Your task to perform on an android device: check storage Image 0: 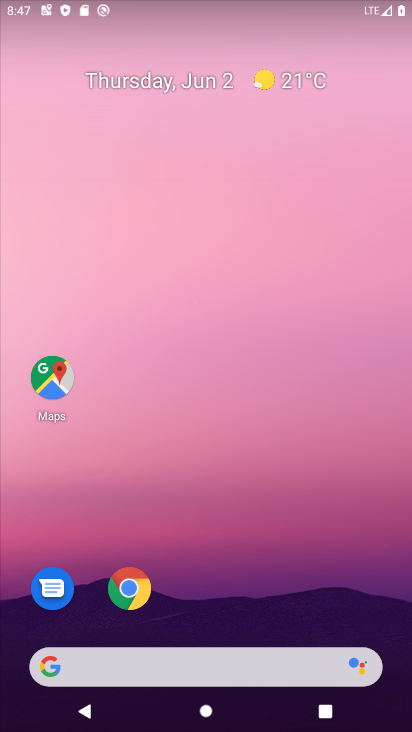
Step 0: drag from (206, 335) to (206, 287)
Your task to perform on an android device: check storage Image 1: 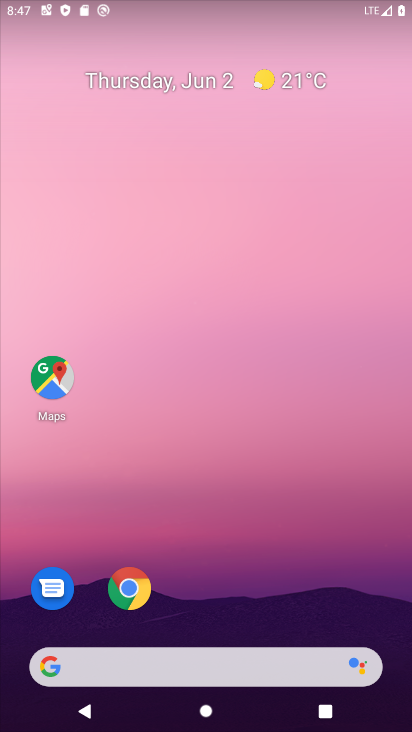
Step 1: drag from (226, 642) to (246, 91)
Your task to perform on an android device: check storage Image 2: 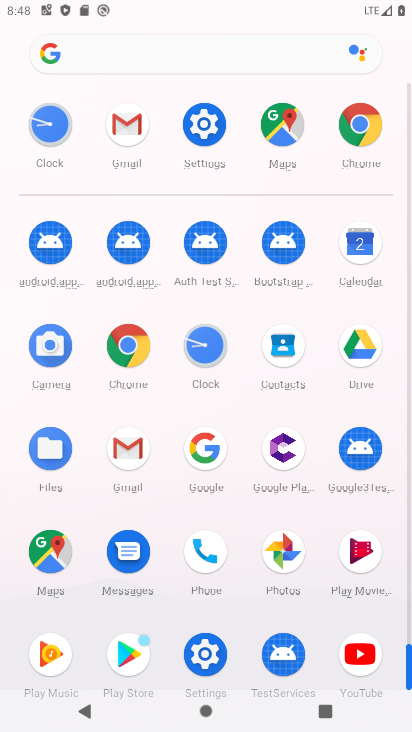
Step 2: click (205, 156)
Your task to perform on an android device: check storage Image 3: 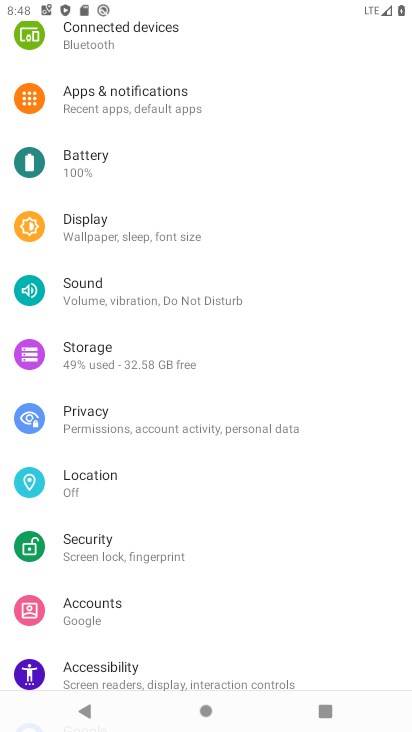
Step 3: click (154, 362)
Your task to perform on an android device: check storage Image 4: 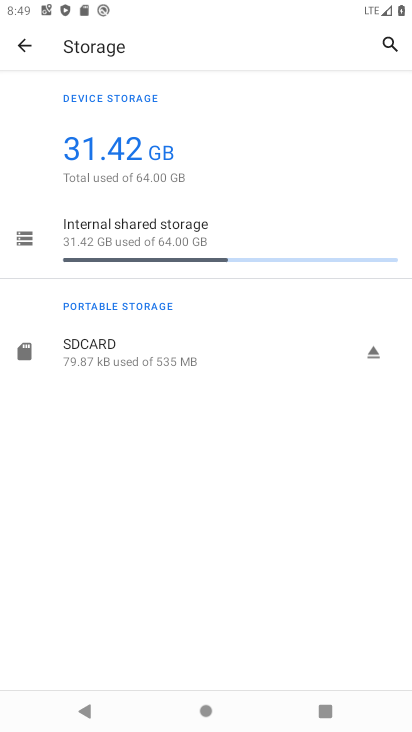
Step 4: click (137, 222)
Your task to perform on an android device: check storage Image 5: 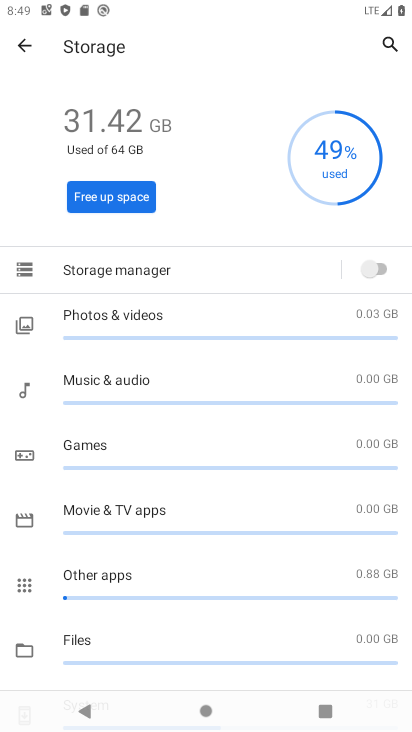
Step 5: task complete